Your task to perform on an android device: Open Android settings Image 0: 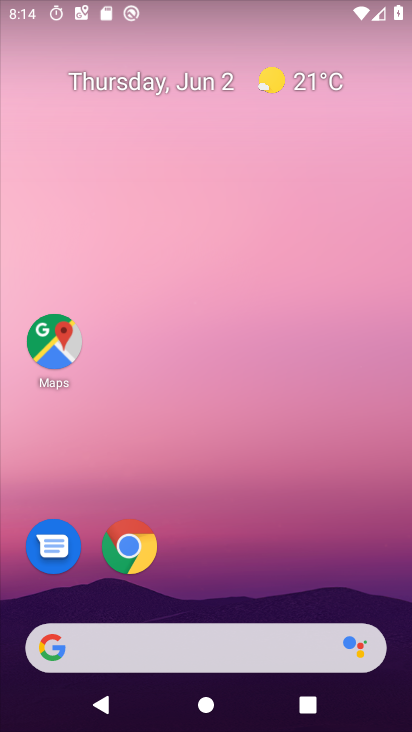
Step 0: click (293, 146)
Your task to perform on an android device: Open Android settings Image 1: 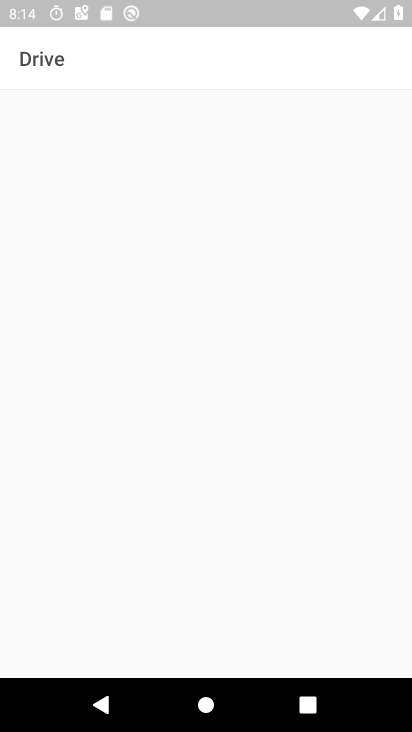
Step 1: press home button
Your task to perform on an android device: Open Android settings Image 2: 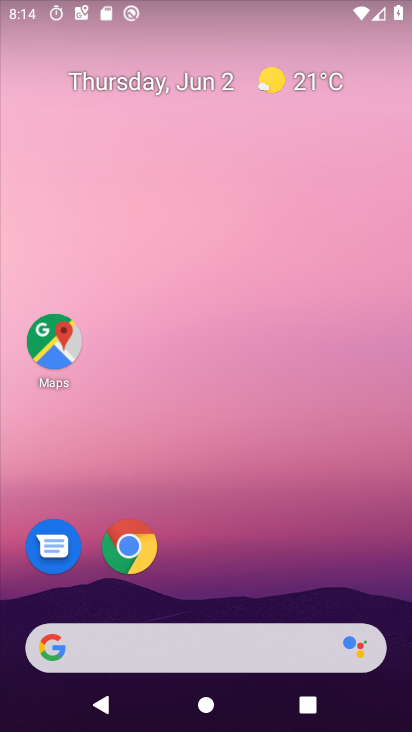
Step 2: drag from (381, 573) to (339, 107)
Your task to perform on an android device: Open Android settings Image 3: 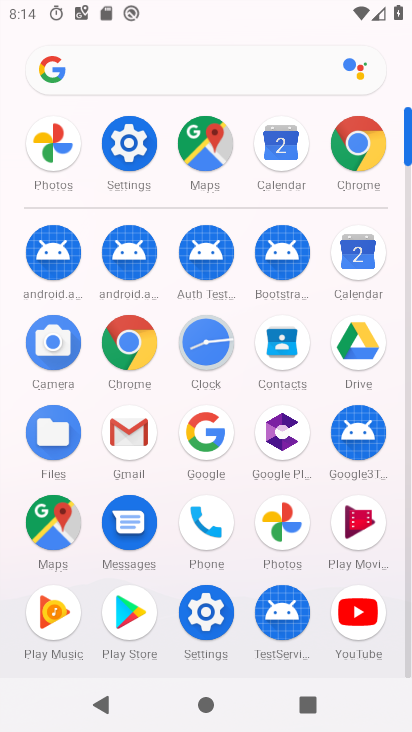
Step 3: click (211, 616)
Your task to perform on an android device: Open Android settings Image 4: 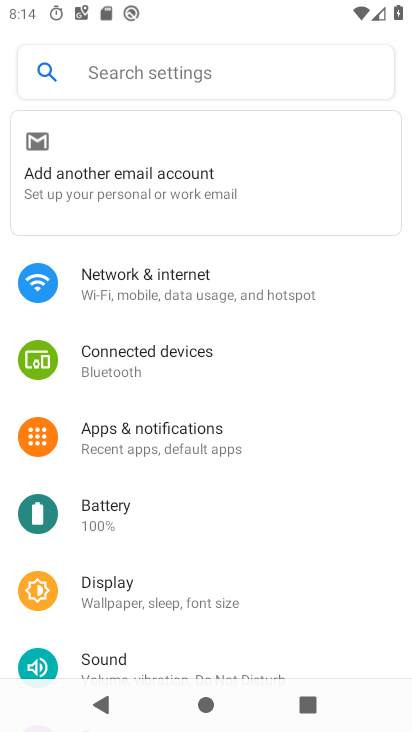
Step 4: drag from (216, 520) to (249, 310)
Your task to perform on an android device: Open Android settings Image 5: 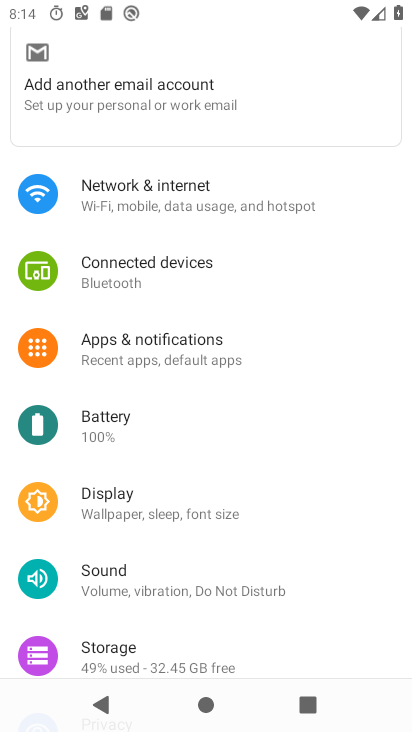
Step 5: drag from (309, 596) to (319, 255)
Your task to perform on an android device: Open Android settings Image 6: 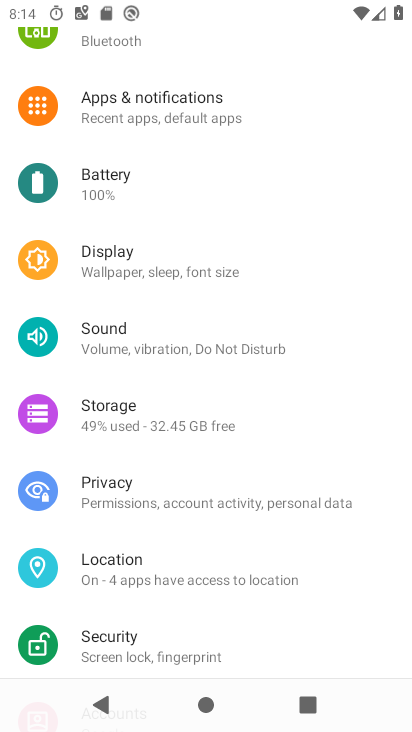
Step 6: drag from (256, 365) to (381, 163)
Your task to perform on an android device: Open Android settings Image 7: 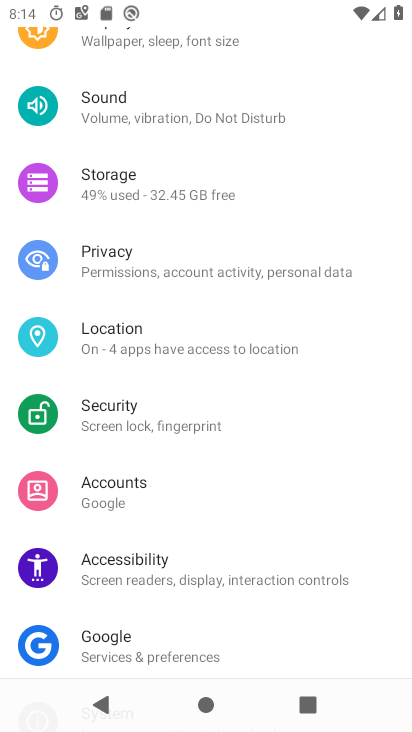
Step 7: drag from (320, 601) to (308, 292)
Your task to perform on an android device: Open Android settings Image 8: 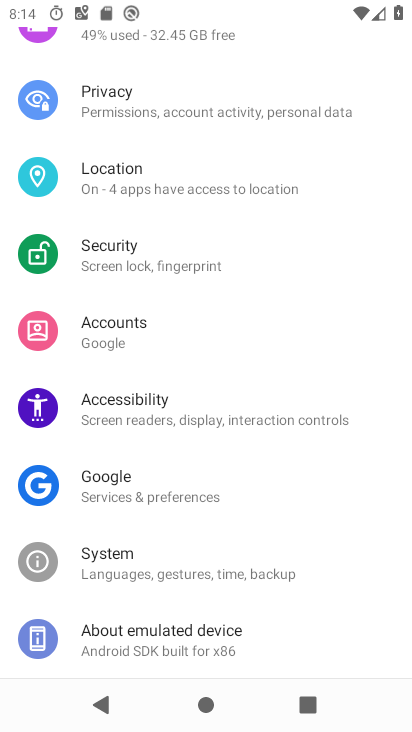
Step 8: click (246, 632)
Your task to perform on an android device: Open Android settings Image 9: 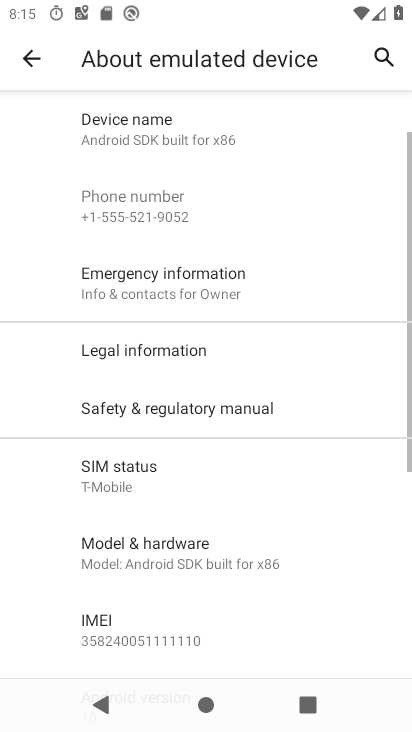
Step 9: drag from (175, 601) to (241, 304)
Your task to perform on an android device: Open Android settings Image 10: 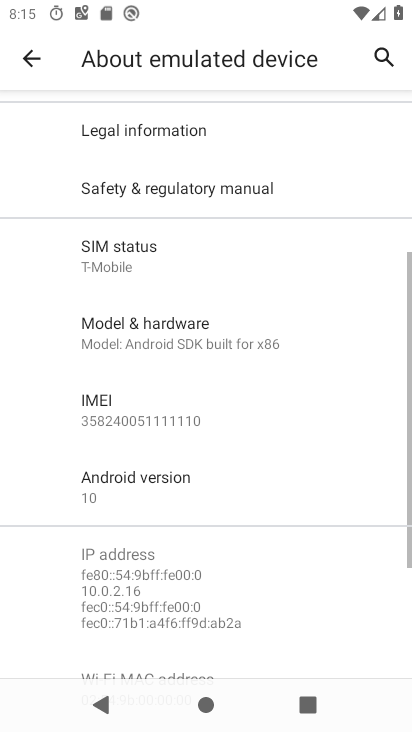
Step 10: click (170, 465)
Your task to perform on an android device: Open Android settings Image 11: 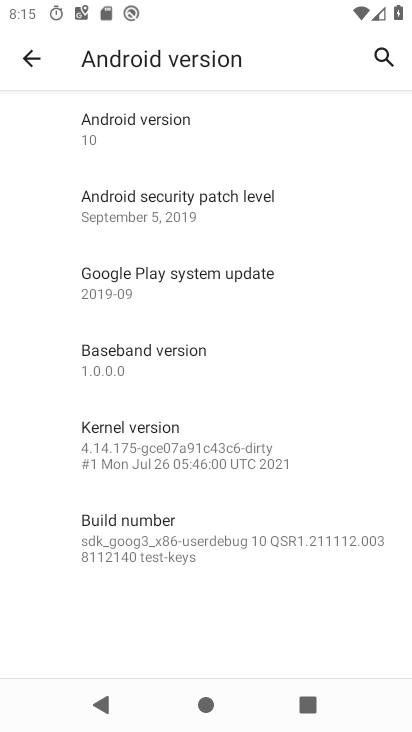
Step 11: task complete